Your task to perform on an android device: open a new tab in the chrome app Image 0: 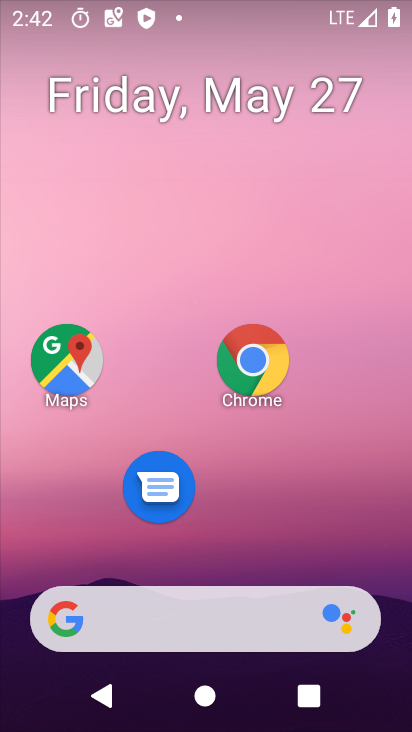
Step 0: click (262, 357)
Your task to perform on an android device: open a new tab in the chrome app Image 1: 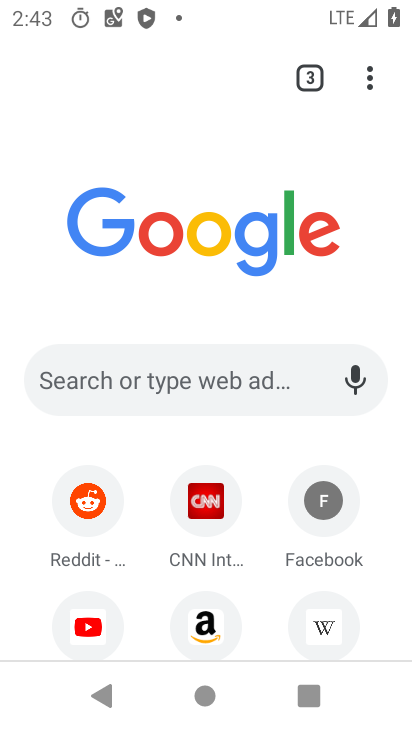
Step 1: click (363, 74)
Your task to perform on an android device: open a new tab in the chrome app Image 2: 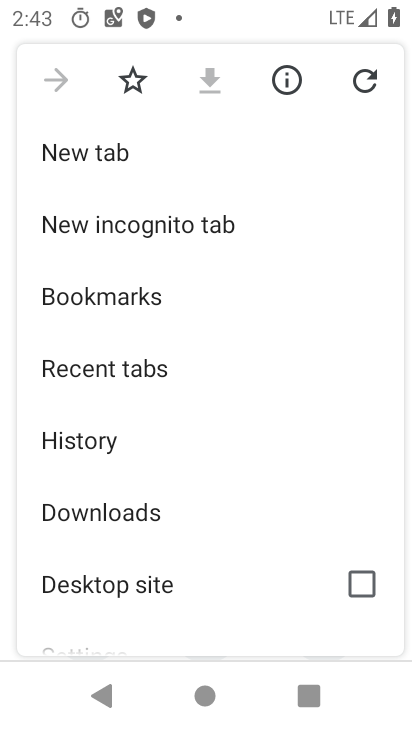
Step 2: press back button
Your task to perform on an android device: open a new tab in the chrome app Image 3: 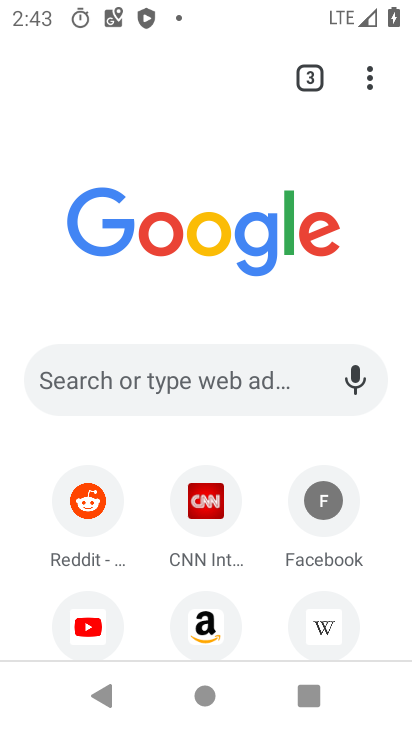
Step 3: click (314, 77)
Your task to perform on an android device: open a new tab in the chrome app Image 4: 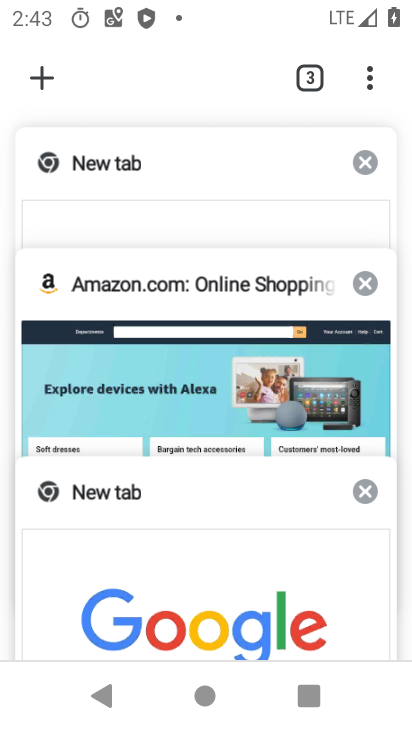
Step 4: click (45, 77)
Your task to perform on an android device: open a new tab in the chrome app Image 5: 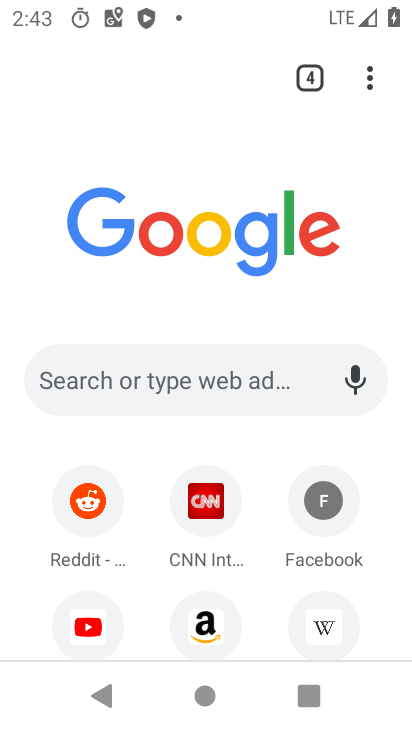
Step 5: task complete